Your task to perform on an android device: Open the stopwatch Image 0: 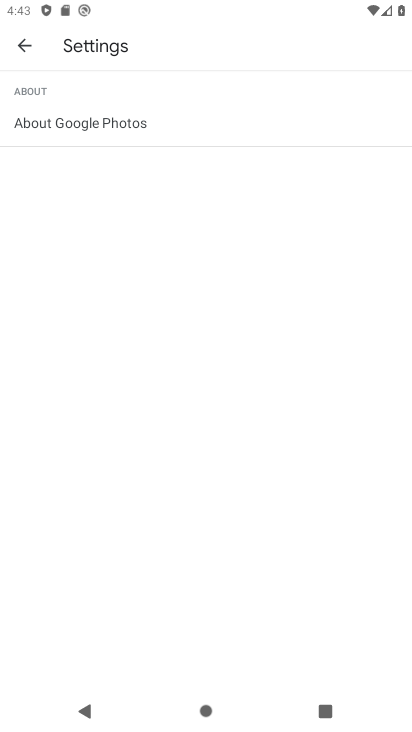
Step 0: press home button
Your task to perform on an android device: Open the stopwatch Image 1: 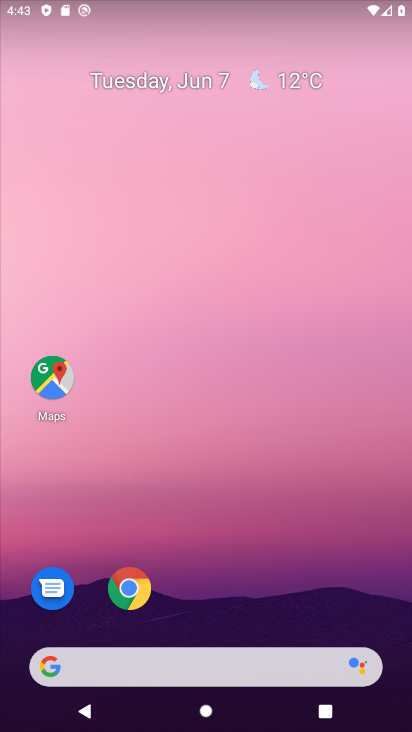
Step 1: drag from (214, 627) to (182, 140)
Your task to perform on an android device: Open the stopwatch Image 2: 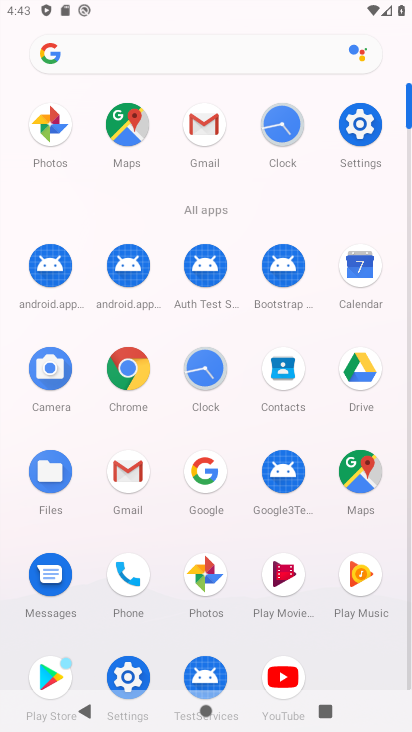
Step 2: click (207, 364)
Your task to perform on an android device: Open the stopwatch Image 3: 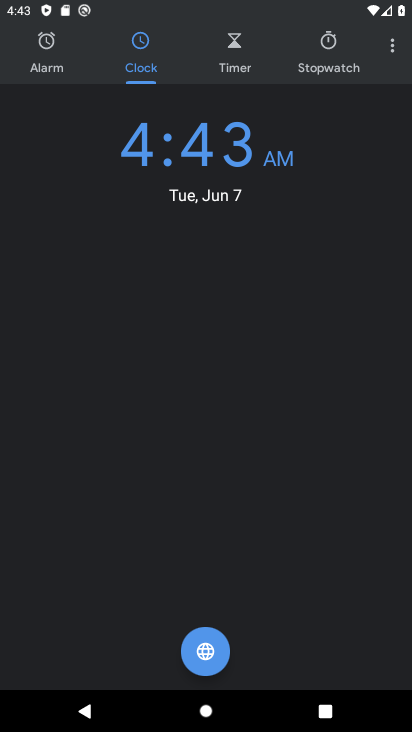
Step 3: click (334, 62)
Your task to perform on an android device: Open the stopwatch Image 4: 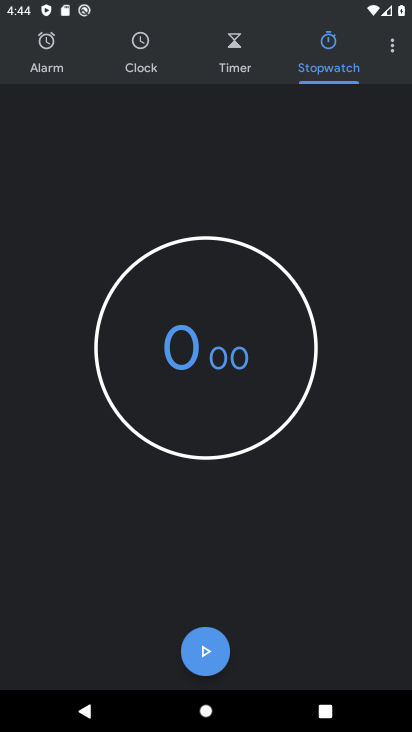
Step 4: task complete